Your task to perform on an android device: Go to battery settings Image 0: 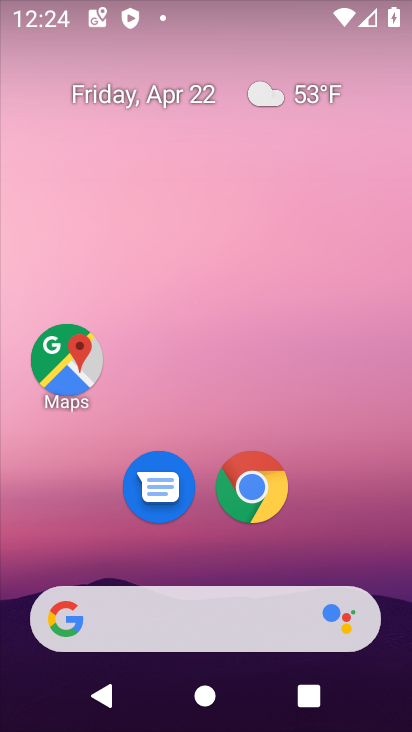
Step 0: drag from (340, 494) to (291, 115)
Your task to perform on an android device: Go to battery settings Image 1: 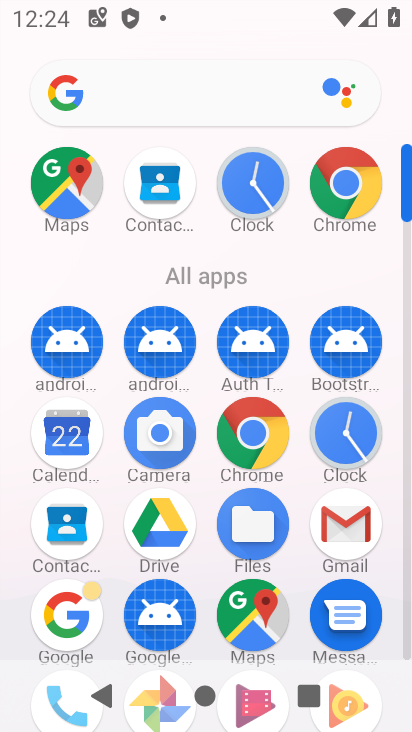
Step 1: drag from (213, 557) to (209, 196)
Your task to perform on an android device: Go to battery settings Image 2: 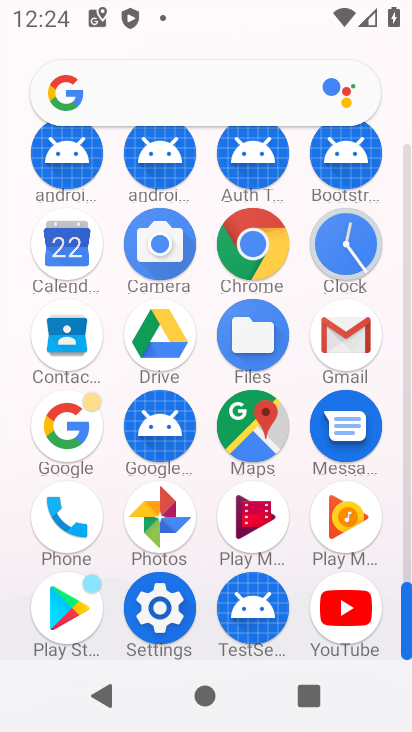
Step 2: click (176, 605)
Your task to perform on an android device: Go to battery settings Image 3: 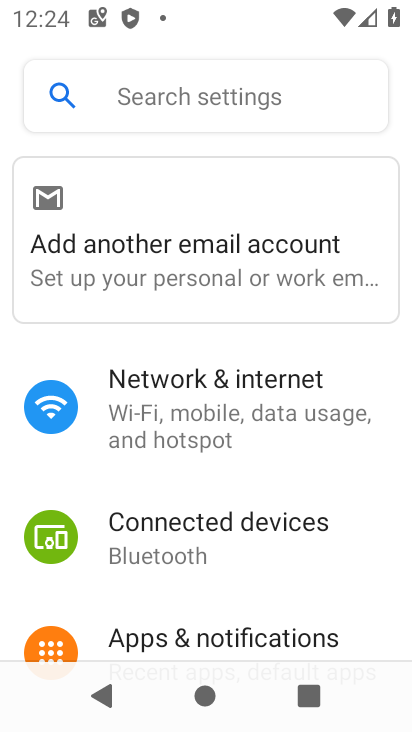
Step 3: drag from (244, 563) to (288, 224)
Your task to perform on an android device: Go to battery settings Image 4: 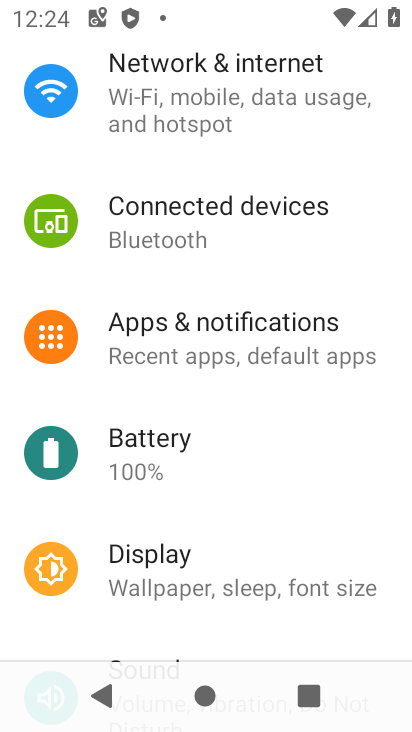
Step 4: click (232, 459)
Your task to perform on an android device: Go to battery settings Image 5: 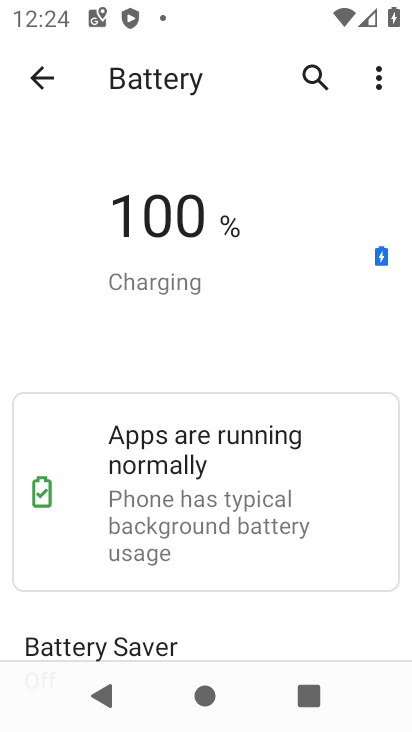
Step 5: task complete